Your task to perform on an android device: Set the phone to "Do not disturb". Image 0: 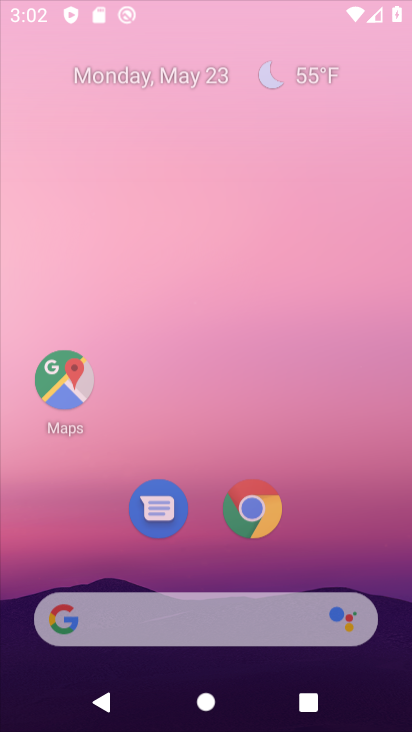
Step 0: press home button
Your task to perform on an android device: Set the phone to "Do not disturb". Image 1: 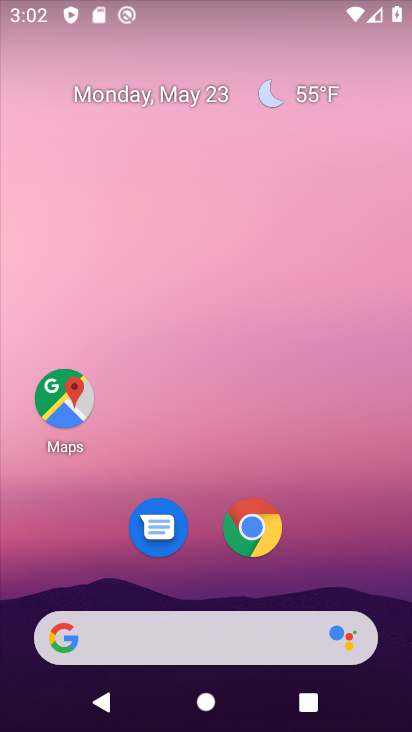
Step 1: drag from (167, 10) to (221, 567)
Your task to perform on an android device: Set the phone to "Do not disturb". Image 2: 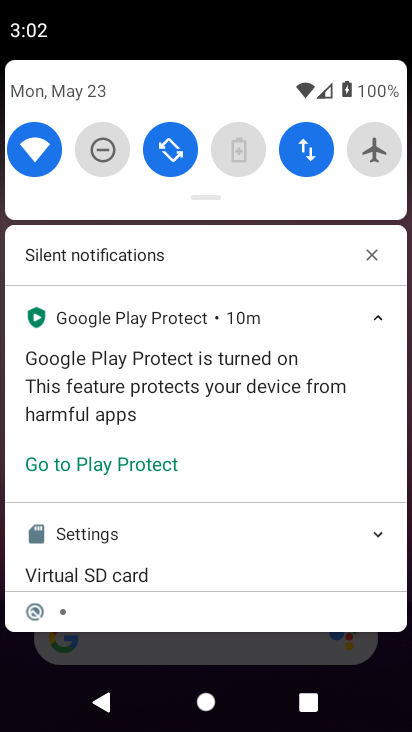
Step 2: click (104, 143)
Your task to perform on an android device: Set the phone to "Do not disturb". Image 3: 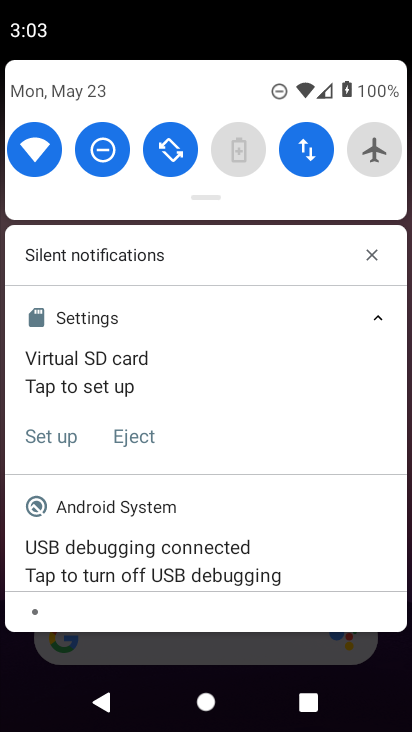
Step 3: task complete